Your task to perform on an android device: check data usage Image 0: 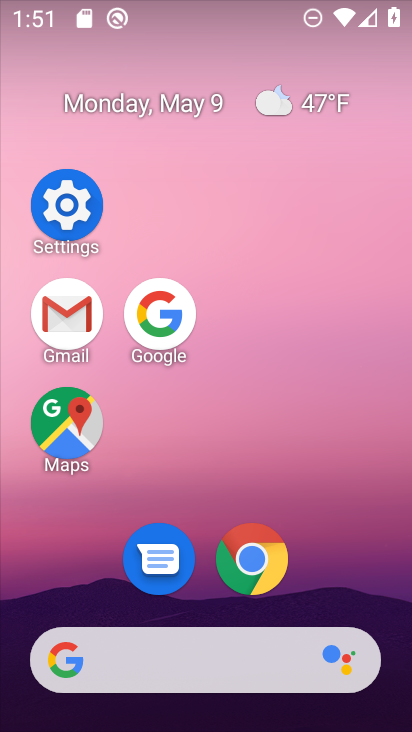
Step 0: click (80, 201)
Your task to perform on an android device: check data usage Image 1: 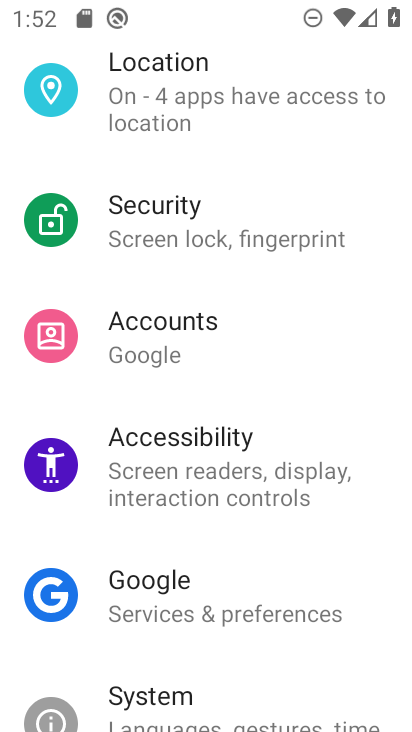
Step 1: drag from (286, 161) to (283, 487)
Your task to perform on an android device: check data usage Image 2: 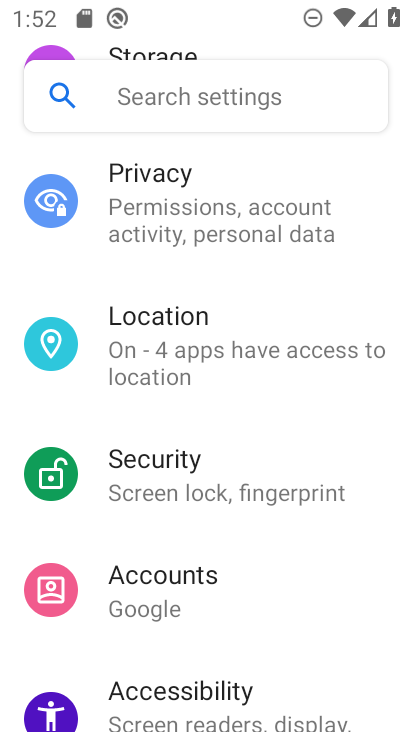
Step 2: drag from (360, 152) to (344, 574)
Your task to perform on an android device: check data usage Image 3: 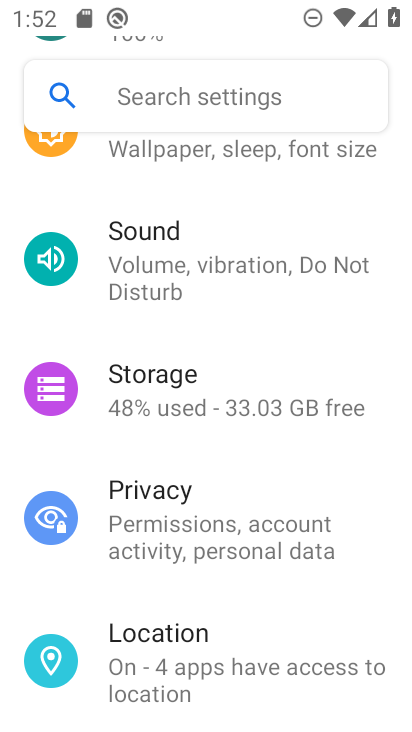
Step 3: drag from (323, 222) to (292, 472)
Your task to perform on an android device: check data usage Image 4: 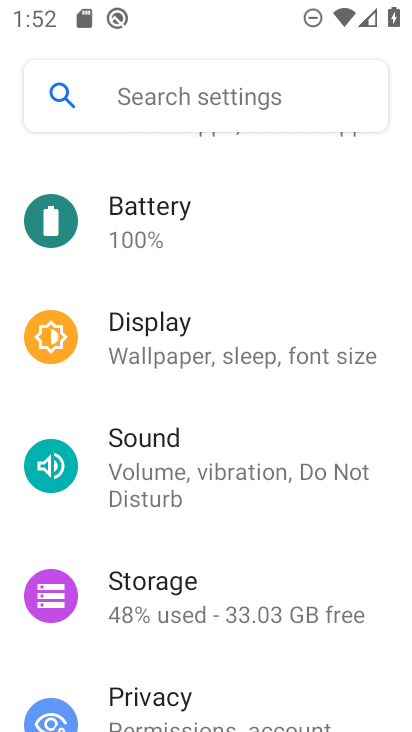
Step 4: drag from (312, 316) to (302, 553)
Your task to perform on an android device: check data usage Image 5: 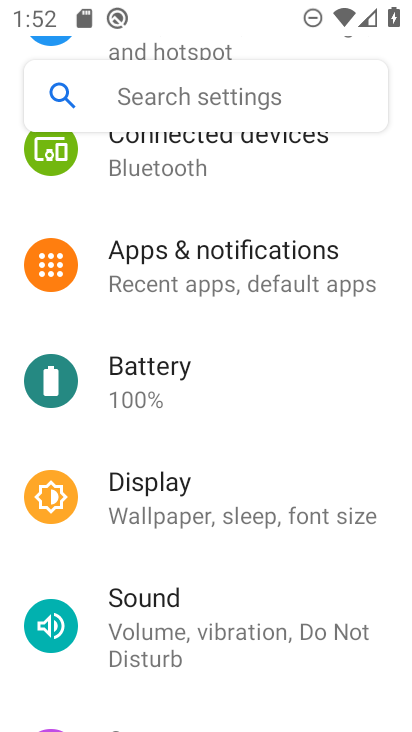
Step 5: drag from (281, 153) to (284, 469)
Your task to perform on an android device: check data usage Image 6: 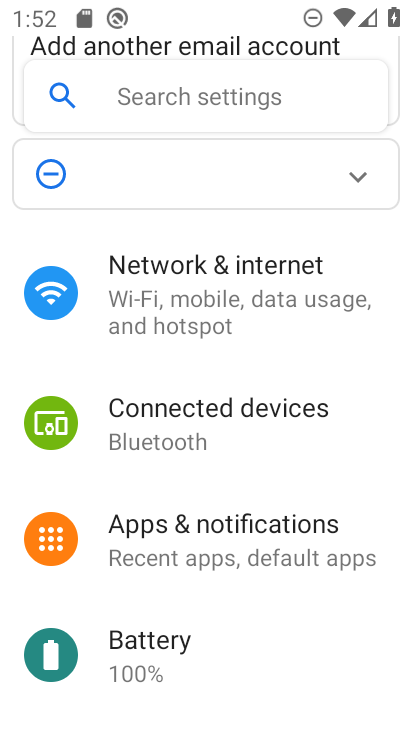
Step 6: click (234, 297)
Your task to perform on an android device: check data usage Image 7: 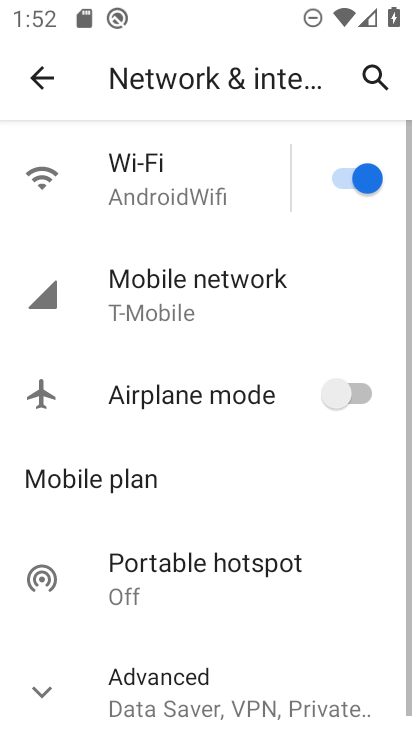
Step 7: click (234, 297)
Your task to perform on an android device: check data usage Image 8: 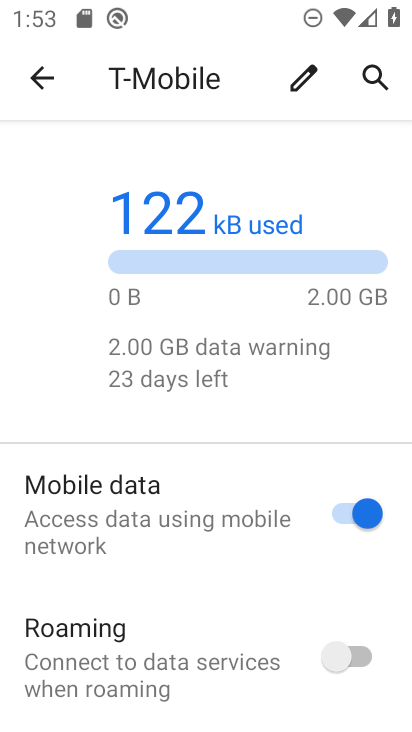
Step 8: drag from (197, 567) to (217, 141)
Your task to perform on an android device: check data usage Image 9: 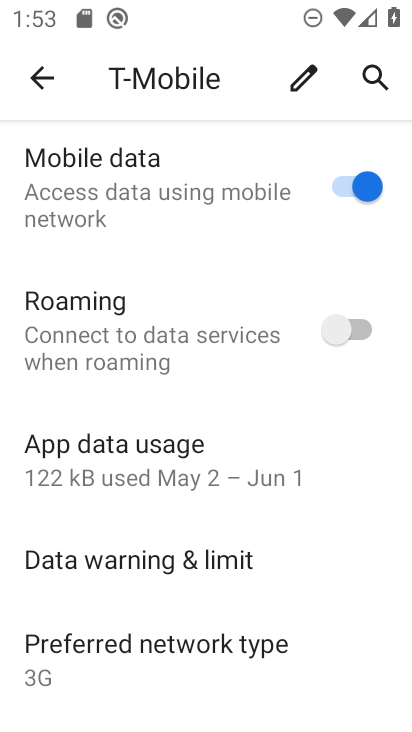
Step 9: click (202, 456)
Your task to perform on an android device: check data usage Image 10: 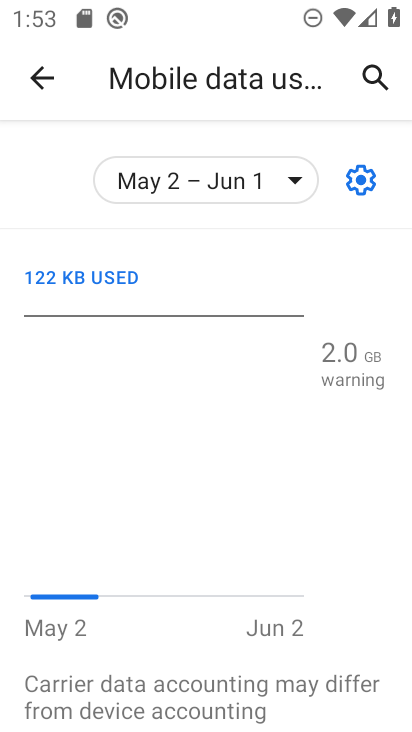
Step 10: task complete